Your task to perform on an android device: toggle notification dots Image 0: 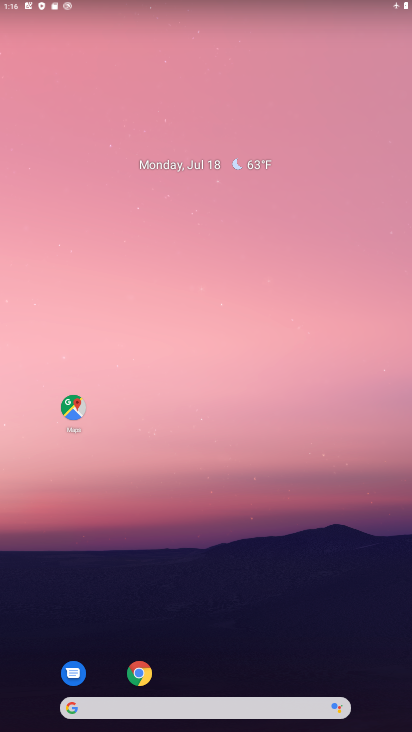
Step 0: drag from (263, 674) to (269, 75)
Your task to perform on an android device: toggle notification dots Image 1: 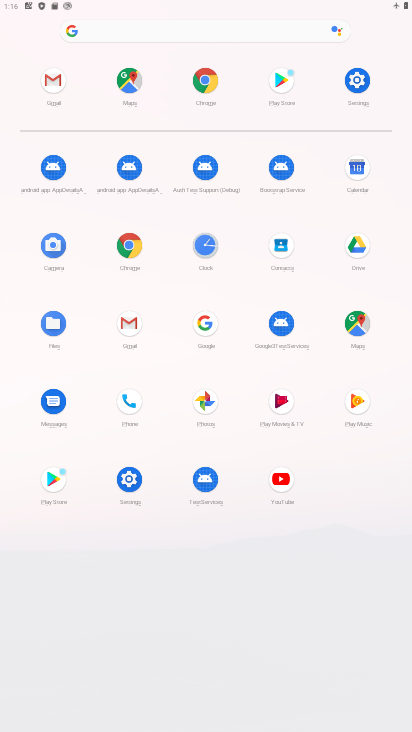
Step 1: click (360, 55)
Your task to perform on an android device: toggle notification dots Image 2: 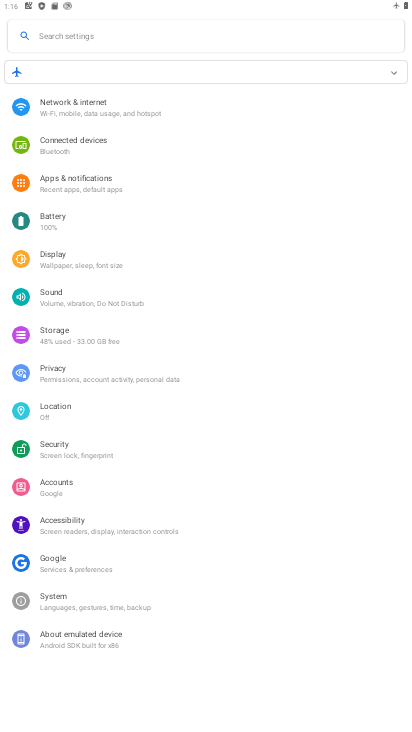
Step 2: click (99, 37)
Your task to perform on an android device: toggle notification dots Image 3: 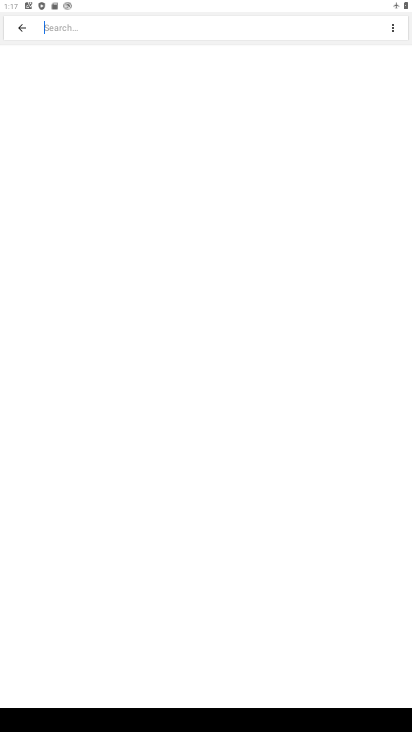
Step 3: click (107, 18)
Your task to perform on an android device: toggle notification dots Image 4: 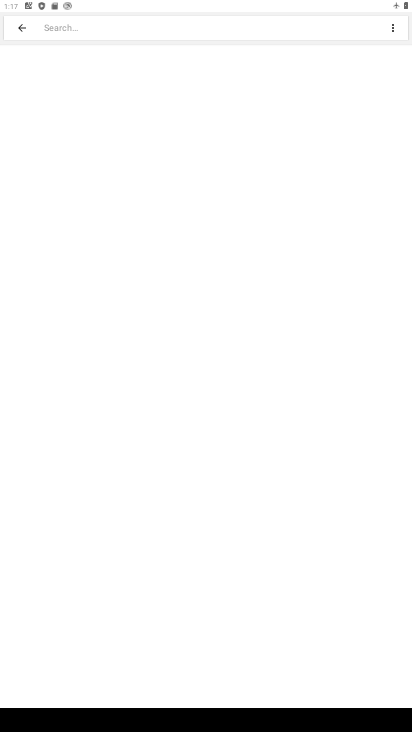
Step 4: type "notification dots "
Your task to perform on an android device: toggle notification dots Image 5: 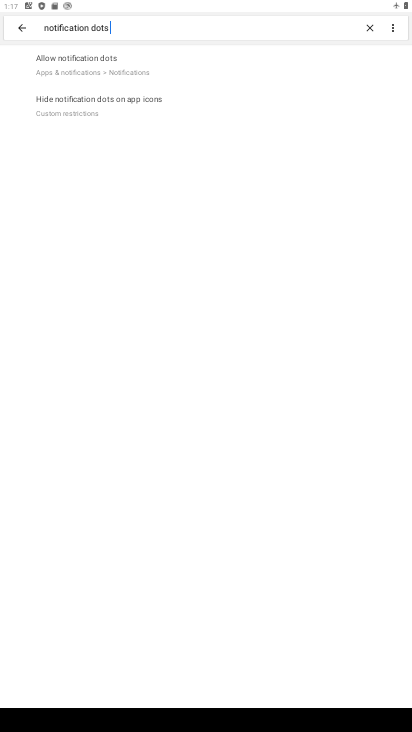
Step 5: click (113, 73)
Your task to perform on an android device: toggle notification dots Image 6: 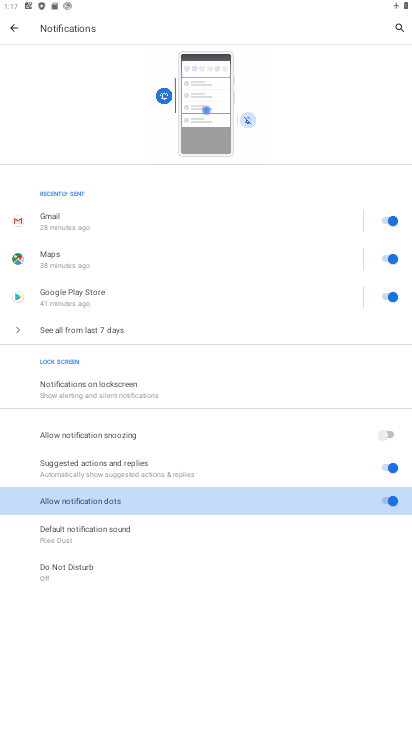
Step 6: click (391, 499)
Your task to perform on an android device: toggle notification dots Image 7: 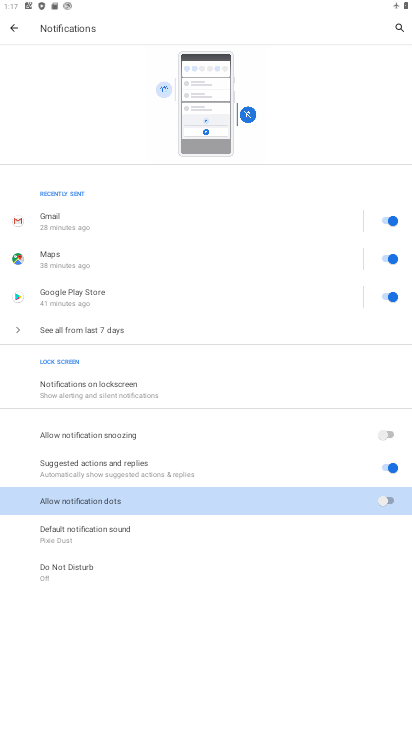
Step 7: task complete